Your task to perform on an android device: delete location history Image 0: 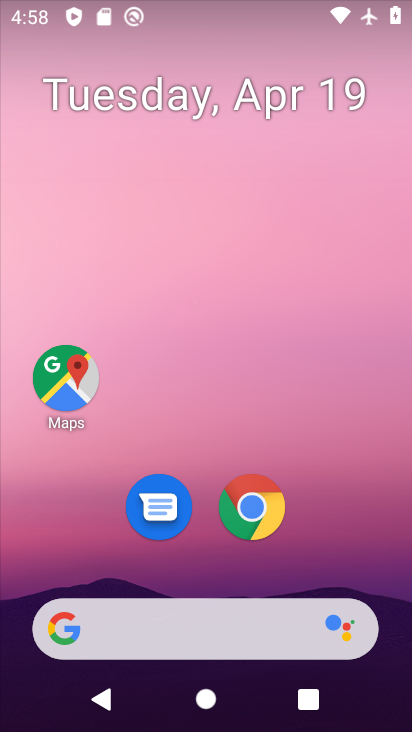
Step 0: drag from (349, 535) to (341, 186)
Your task to perform on an android device: delete location history Image 1: 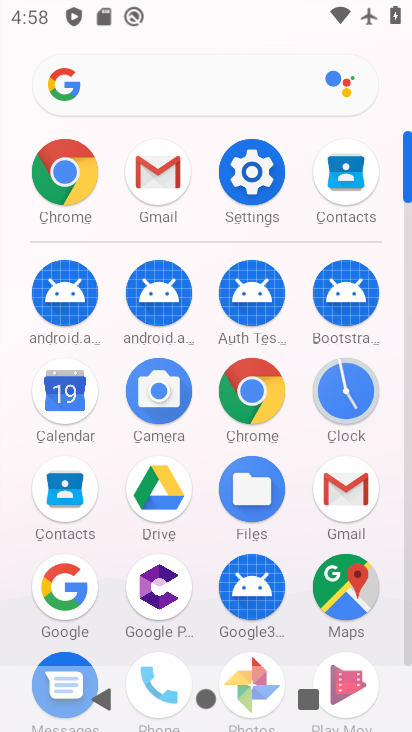
Step 1: drag from (200, 605) to (212, 535)
Your task to perform on an android device: delete location history Image 2: 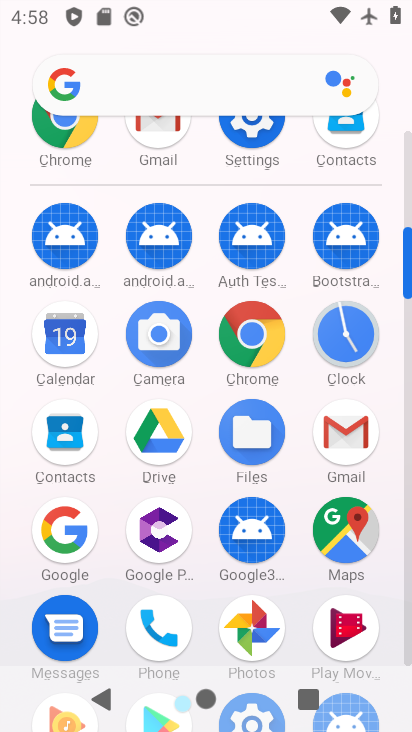
Step 2: click (359, 511)
Your task to perform on an android device: delete location history Image 3: 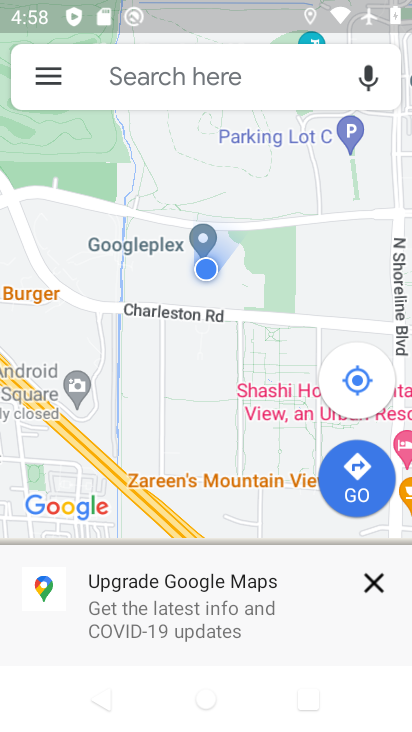
Step 3: click (34, 75)
Your task to perform on an android device: delete location history Image 4: 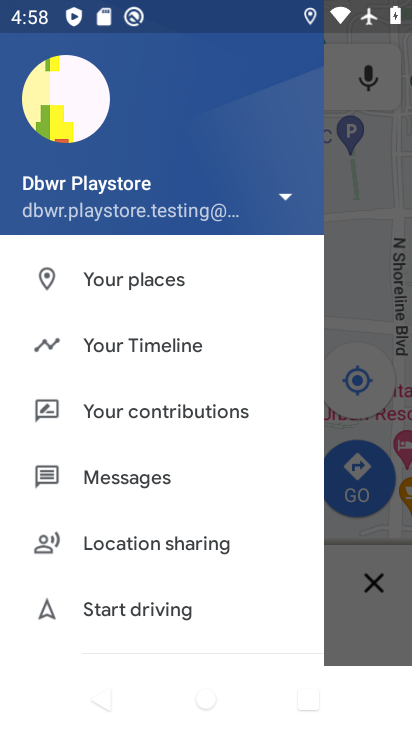
Step 4: drag from (133, 561) to (319, 140)
Your task to perform on an android device: delete location history Image 5: 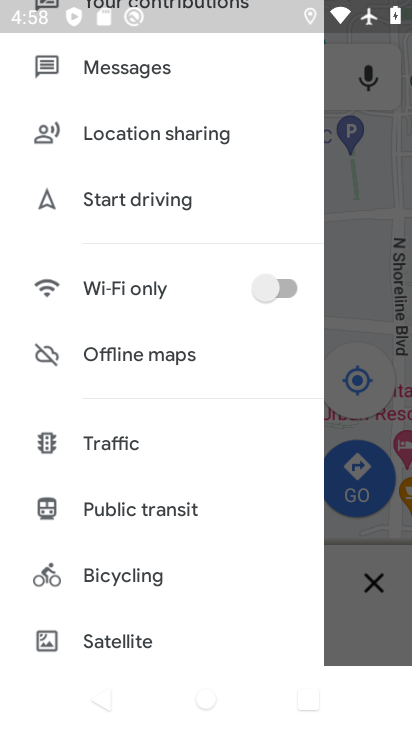
Step 5: drag from (206, 628) to (251, 134)
Your task to perform on an android device: delete location history Image 6: 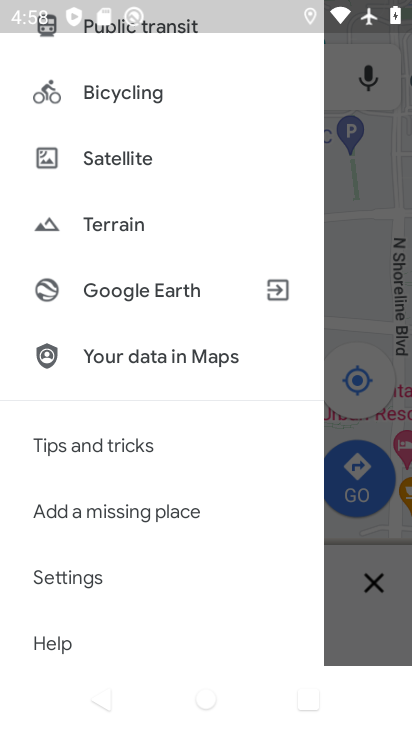
Step 6: click (51, 580)
Your task to perform on an android device: delete location history Image 7: 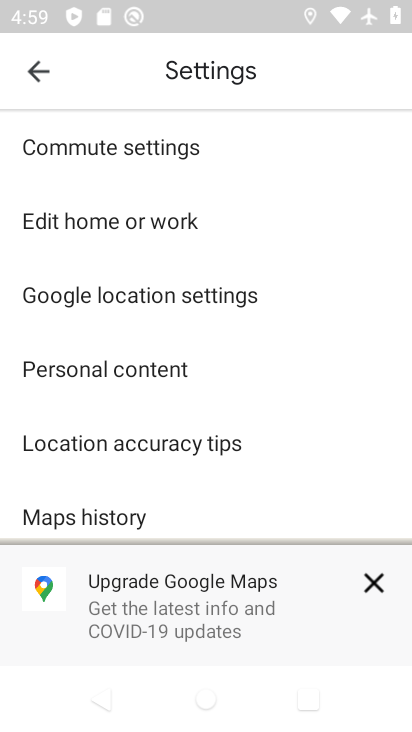
Step 7: click (139, 519)
Your task to perform on an android device: delete location history Image 8: 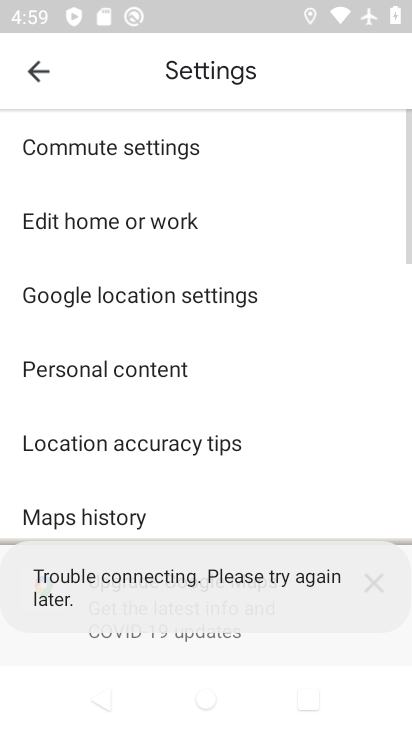
Step 8: drag from (307, 445) to (337, 148)
Your task to perform on an android device: delete location history Image 9: 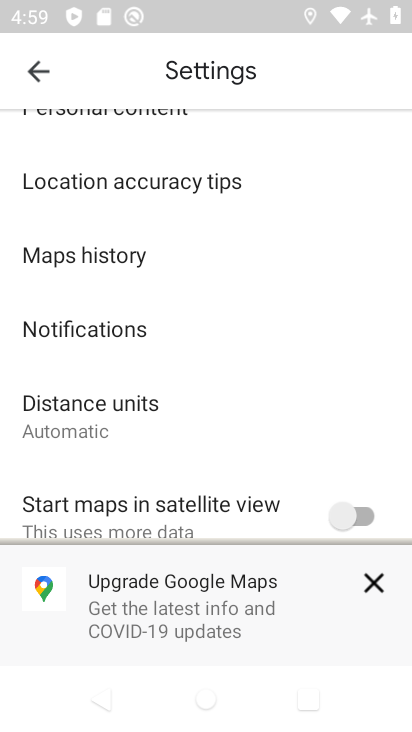
Step 9: click (92, 252)
Your task to perform on an android device: delete location history Image 10: 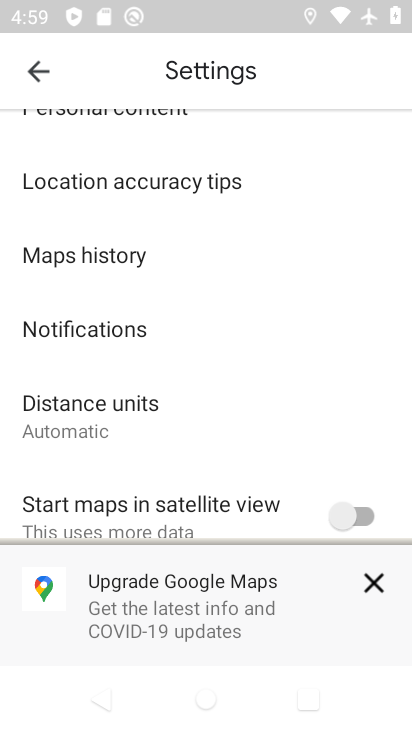
Step 10: click (141, 256)
Your task to perform on an android device: delete location history Image 11: 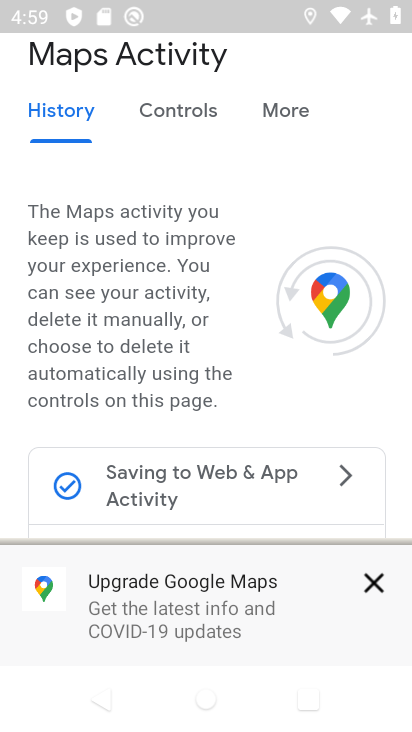
Step 11: drag from (386, 392) to (394, 5)
Your task to perform on an android device: delete location history Image 12: 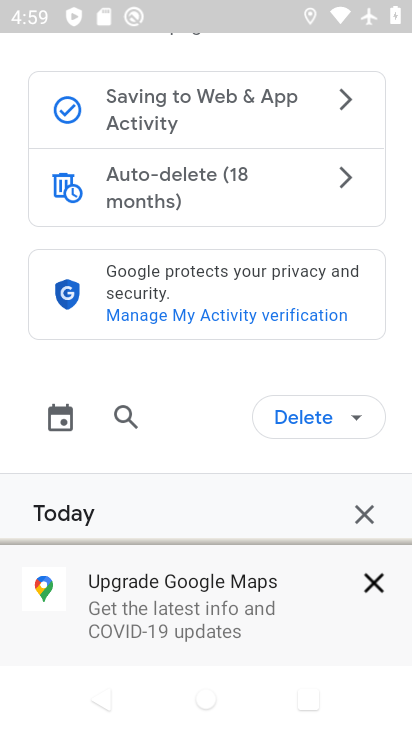
Step 12: click (350, 415)
Your task to perform on an android device: delete location history Image 13: 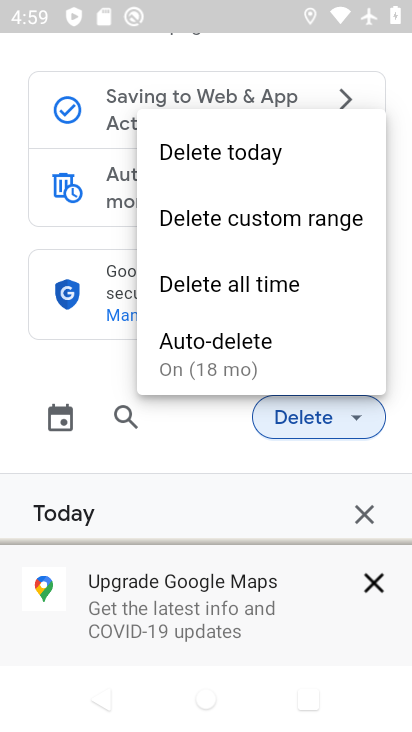
Step 13: click (315, 284)
Your task to perform on an android device: delete location history Image 14: 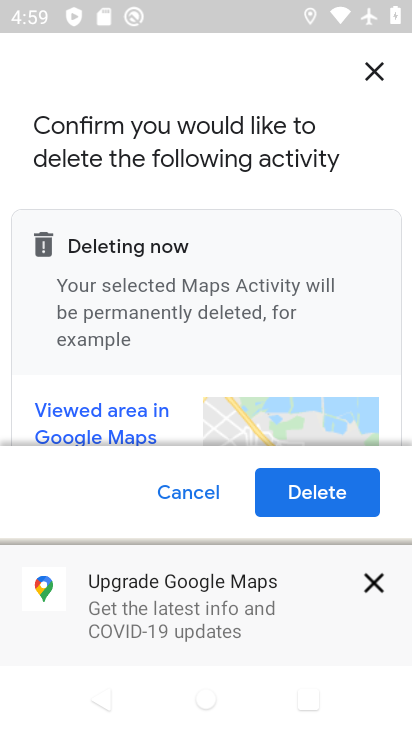
Step 14: click (328, 485)
Your task to perform on an android device: delete location history Image 15: 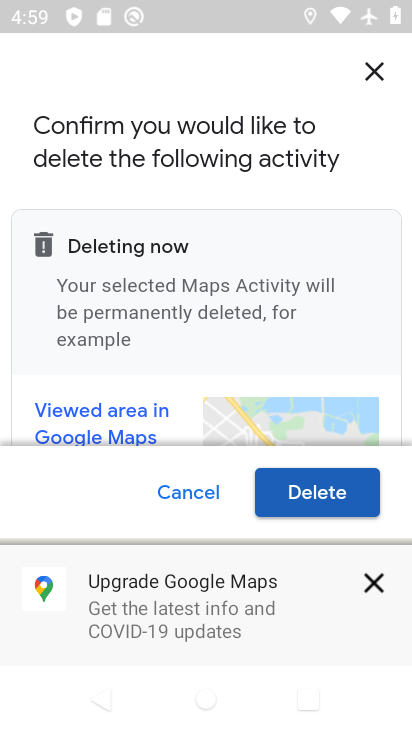
Step 15: click (330, 482)
Your task to perform on an android device: delete location history Image 16: 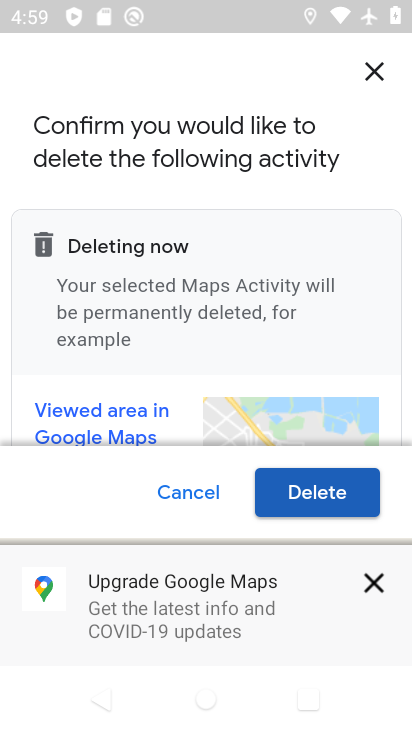
Step 16: click (334, 494)
Your task to perform on an android device: delete location history Image 17: 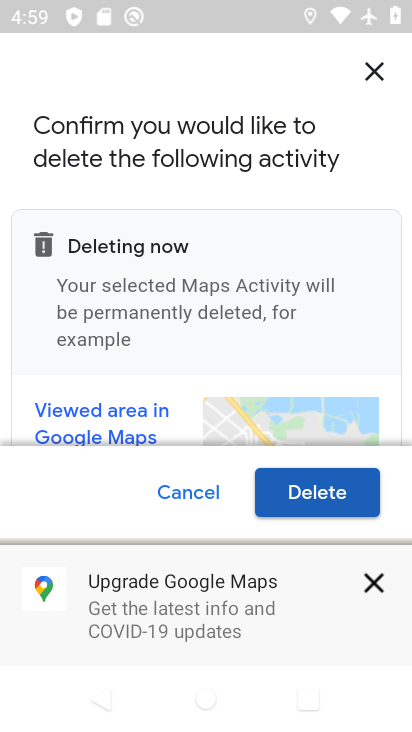
Step 17: click (315, 487)
Your task to perform on an android device: delete location history Image 18: 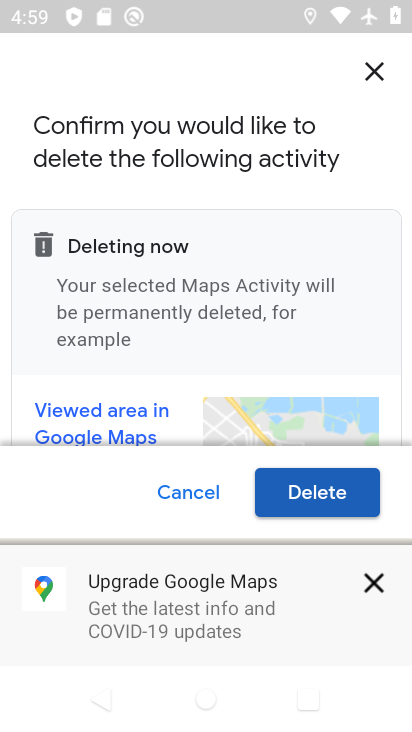
Step 18: click (314, 484)
Your task to perform on an android device: delete location history Image 19: 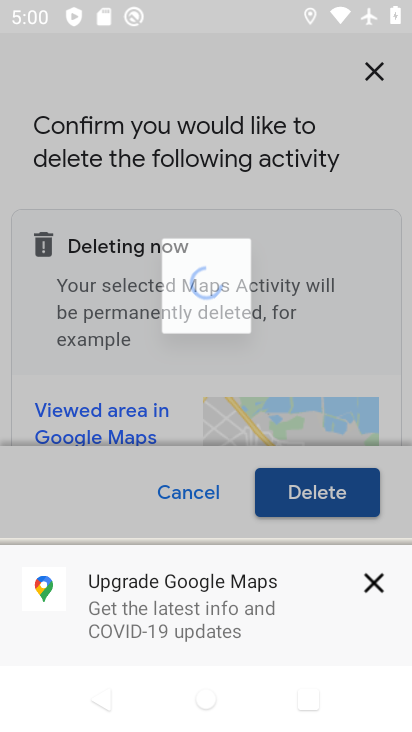
Step 19: click (313, 483)
Your task to perform on an android device: delete location history Image 20: 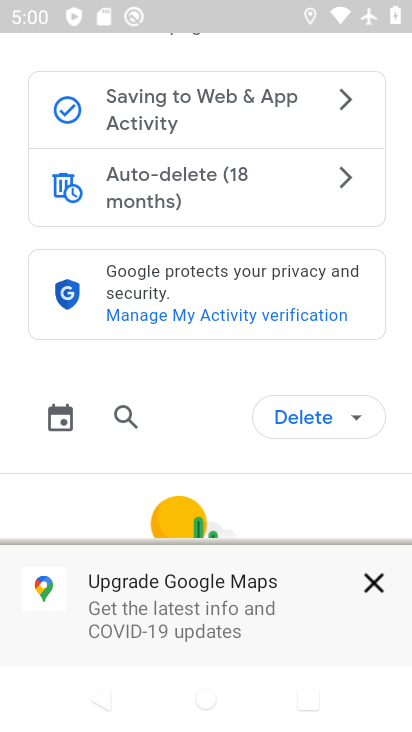
Step 20: task complete